Your task to perform on an android device: Turn off the flashlight Image 0: 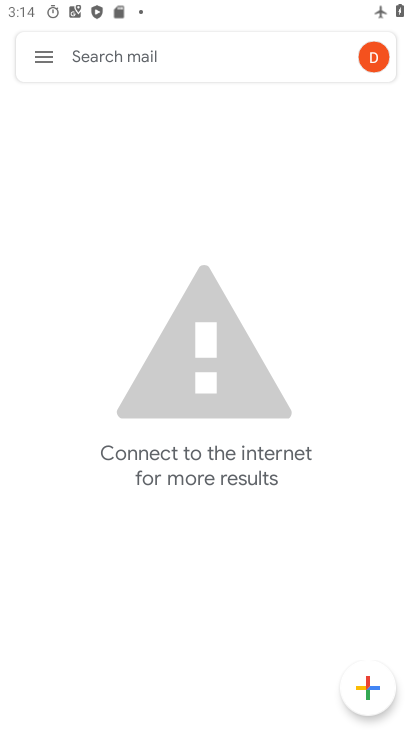
Step 0: press home button
Your task to perform on an android device: Turn off the flashlight Image 1: 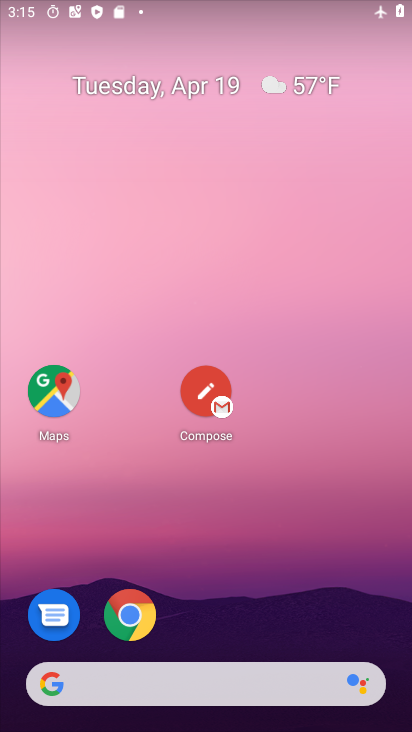
Step 1: task complete